Your task to perform on an android device: open chrome and create a bookmark for the current page Image 0: 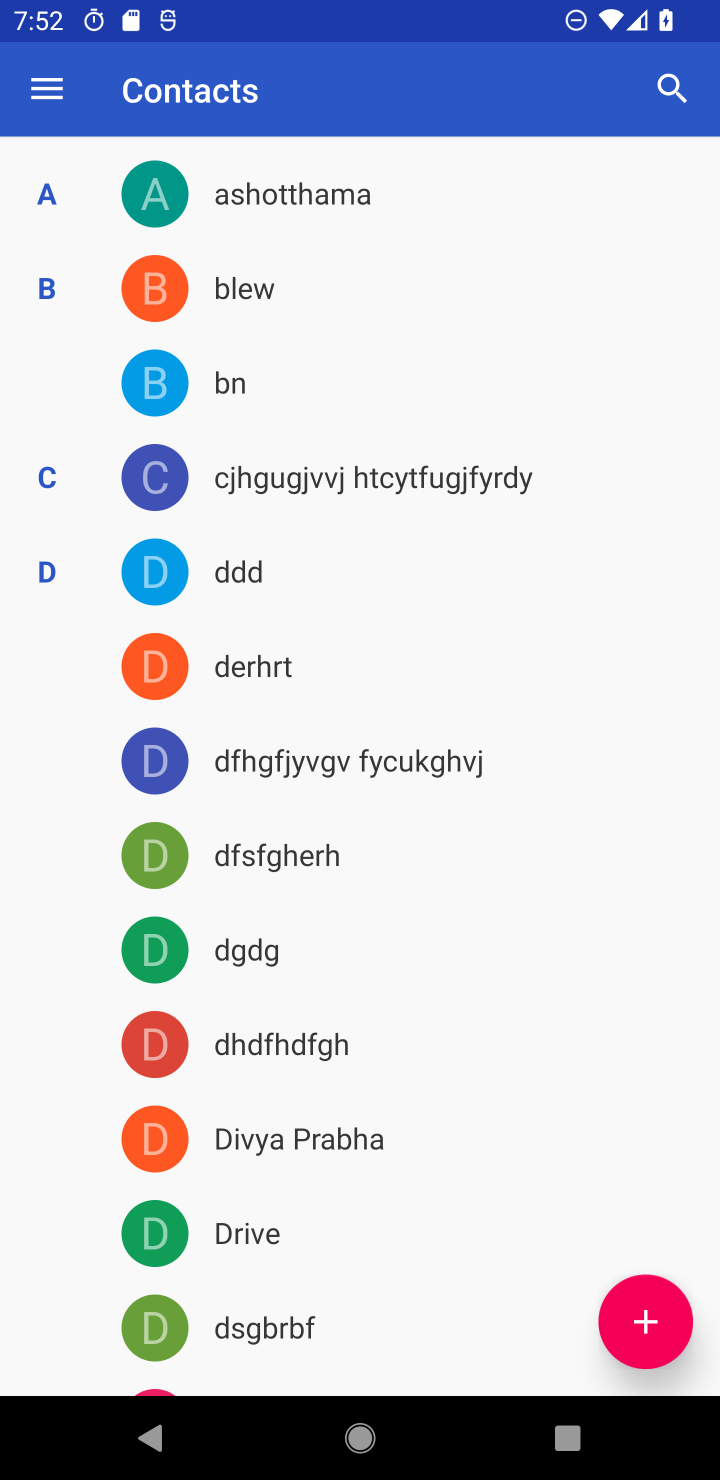
Step 0: press home button
Your task to perform on an android device: open chrome and create a bookmark for the current page Image 1: 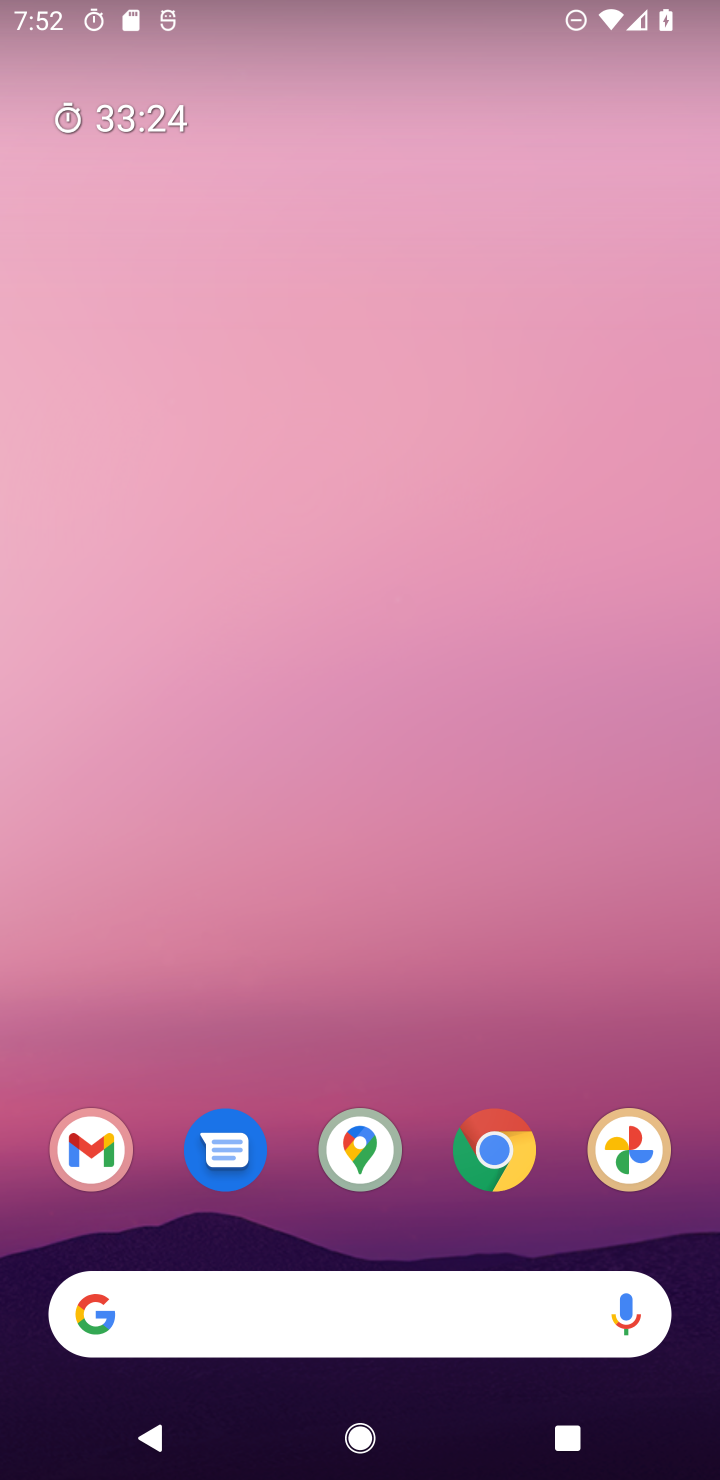
Step 1: drag from (330, 1304) to (335, 41)
Your task to perform on an android device: open chrome and create a bookmark for the current page Image 2: 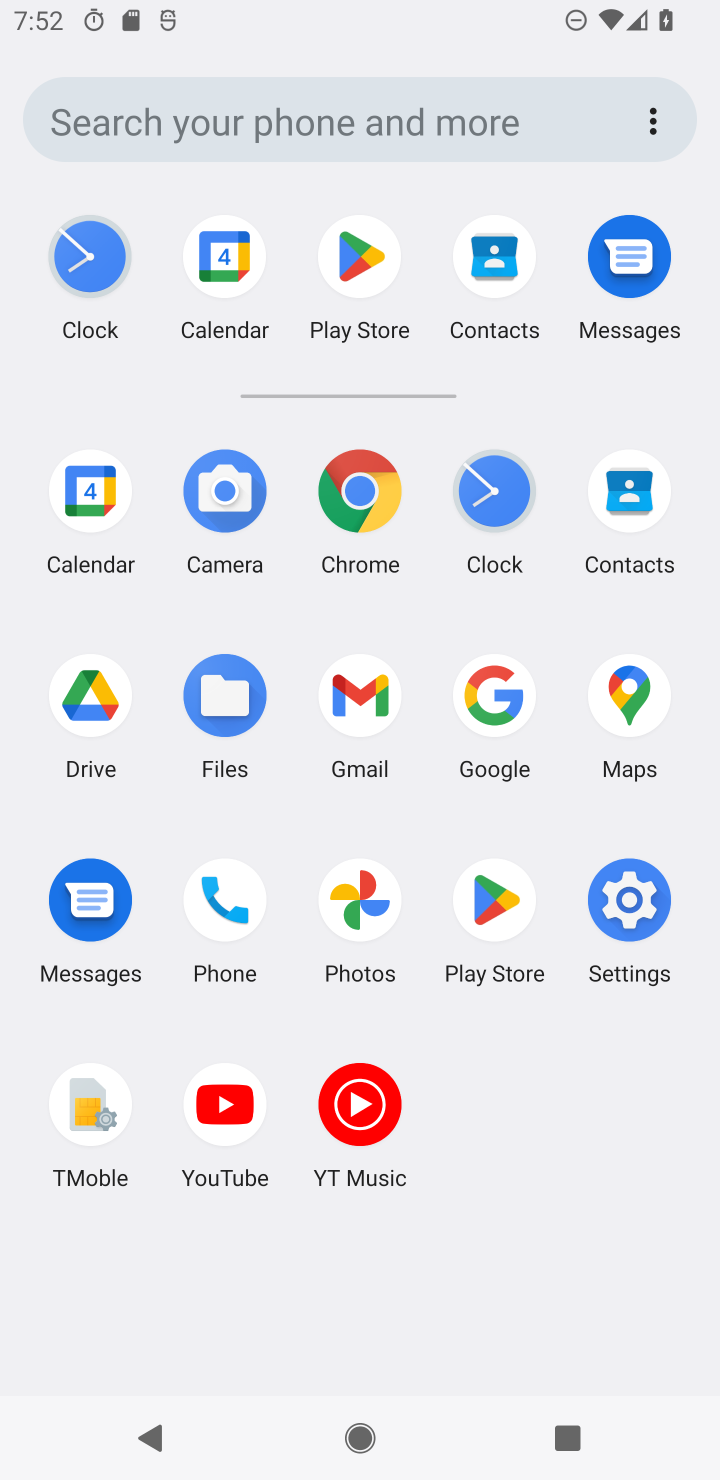
Step 2: click (355, 466)
Your task to perform on an android device: open chrome and create a bookmark for the current page Image 3: 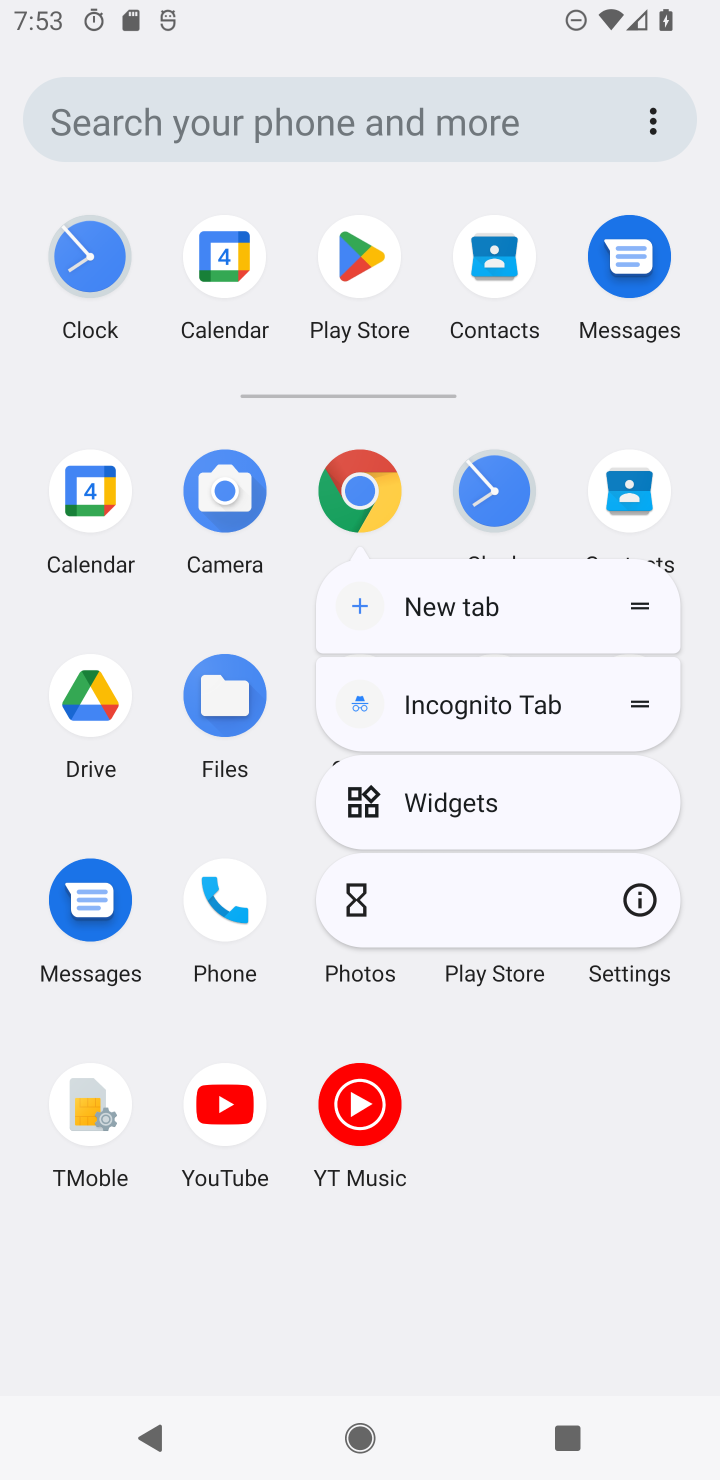
Step 3: click (343, 483)
Your task to perform on an android device: open chrome and create a bookmark for the current page Image 4: 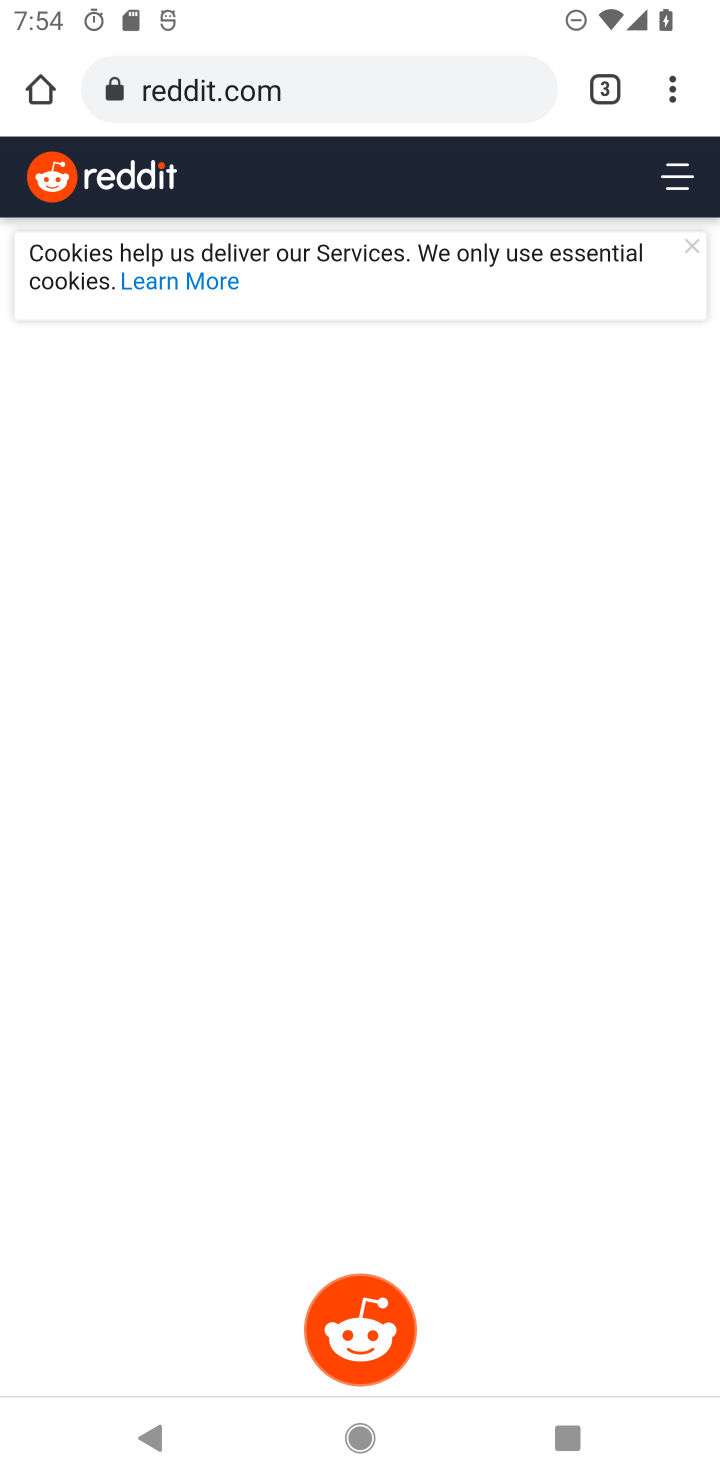
Step 4: click (675, 71)
Your task to perform on an android device: open chrome and create a bookmark for the current page Image 5: 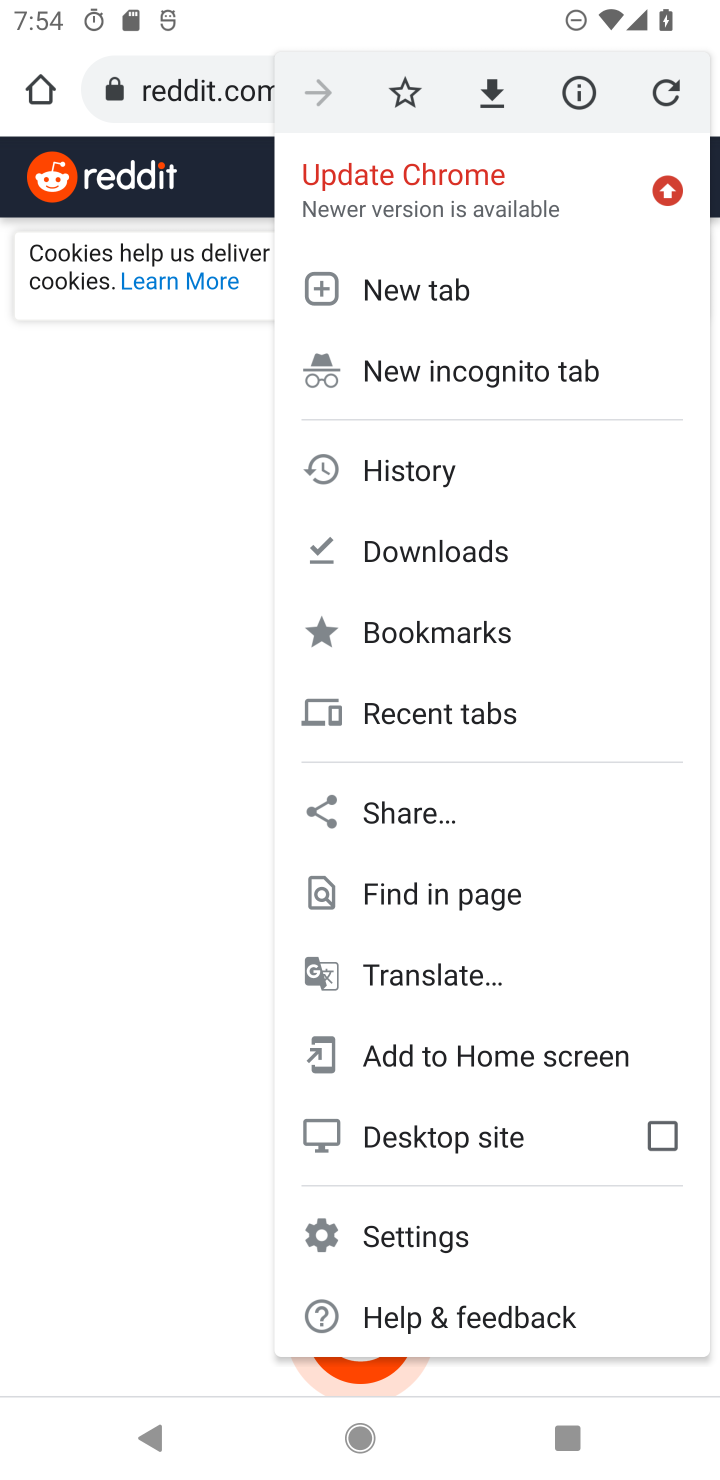
Step 5: click (477, 628)
Your task to perform on an android device: open chrome and create a bookmark for the current page Image 6: 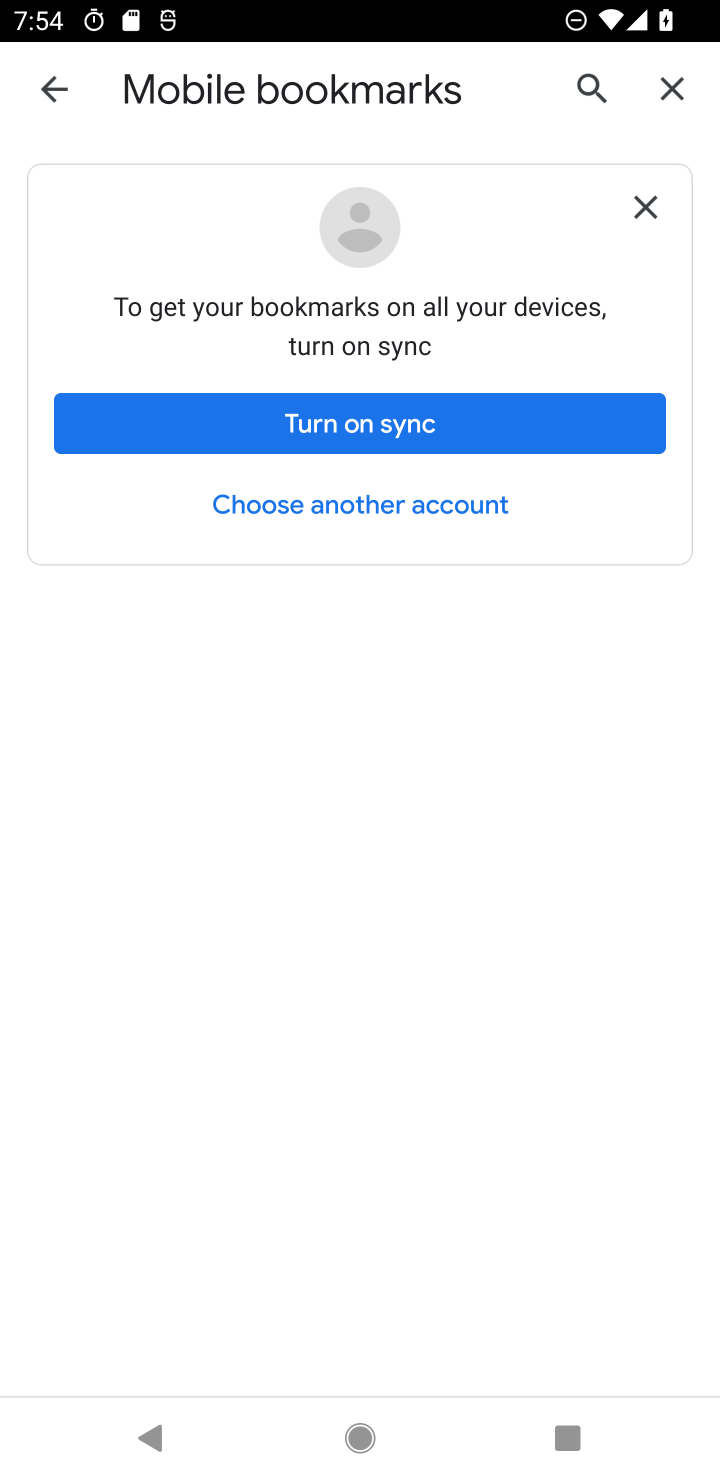
Step 6: task complete